Your task to perform on an android device: Search for sushi restaurants on Maps Image 0: 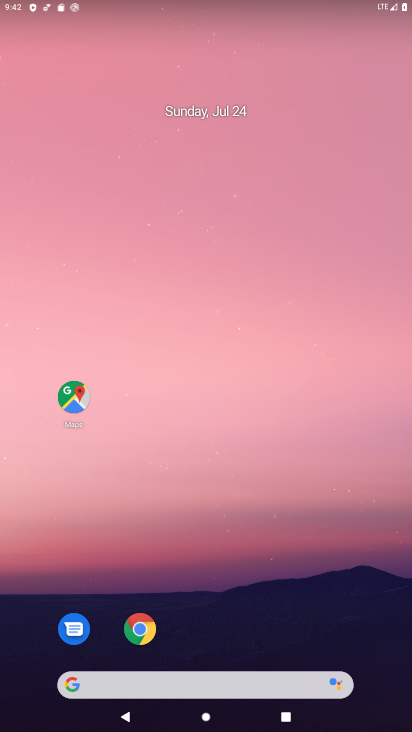
Step 0: press home button
Your task to perform on an android device: Search for sushi restaurants on Maps Image 1: 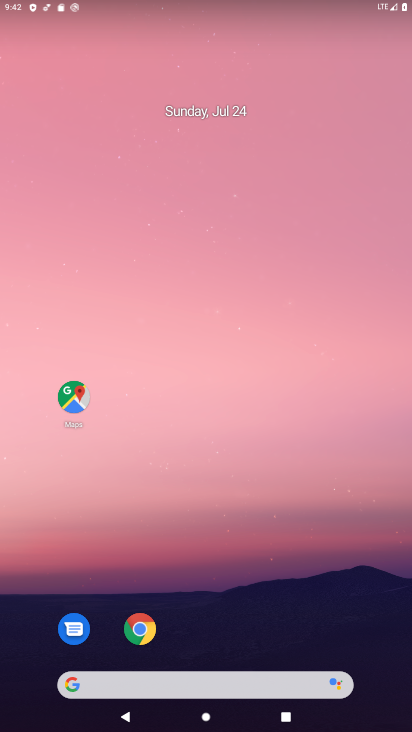
Step 1: click (78, 387)
Your task to perform on an android device: Search for sushi restaurants on Maps Image 2: 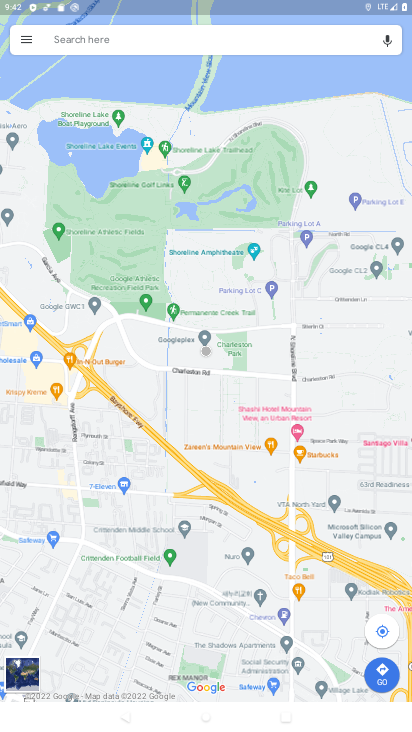
Step 2: click (154, 40)
Your task to perform on an android device: Search for sushi restaurants on Maps Image 3: 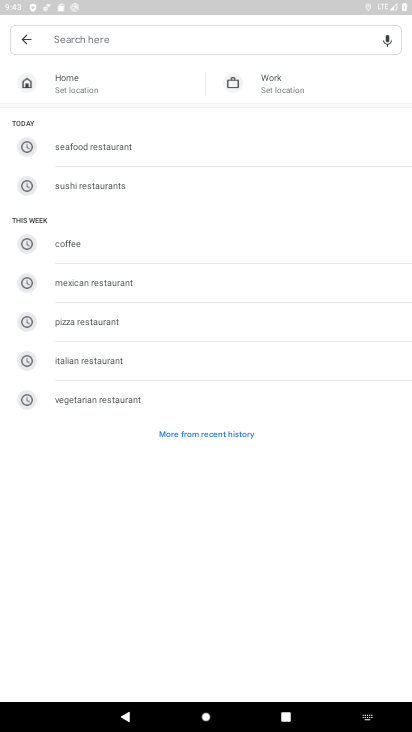
Step 3: type " sushi restaurants"
Your task to perform on an android device: Search for sushi restaurants on Maps Image 4: 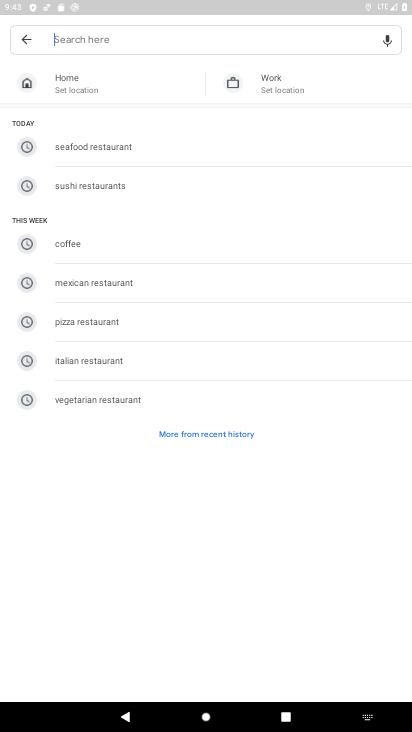
Step 4: click (73, 41)
Your task to perform on an android device: Search for sushi restaurants on Maps Image 5: 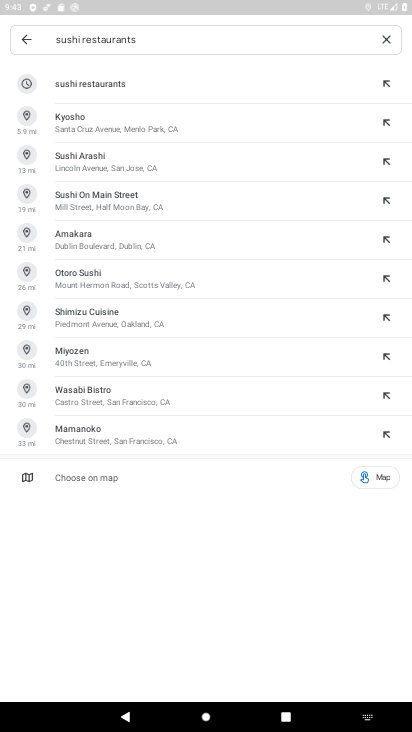
Step 5: click (105, 86)
Your task to perform on an android device: Search for sushi restaurants on Maps Image 6: 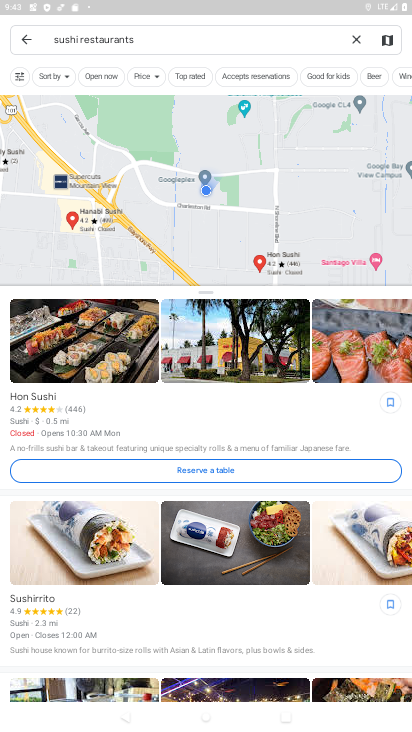
Step 6: task complete